Your task to perform on an android device: Open eBay Image 0: 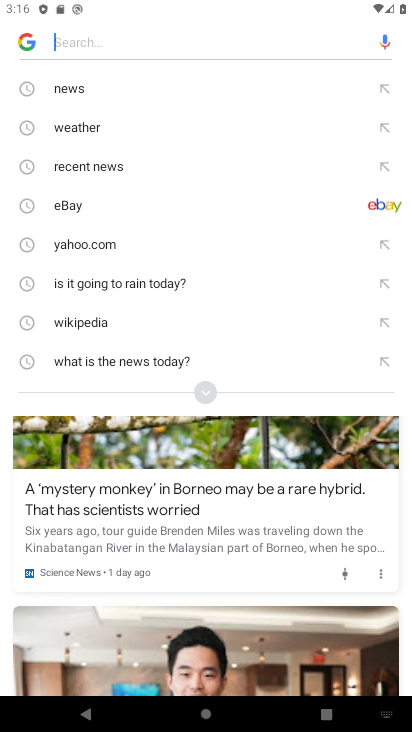
Step 0: press home button
Your task to perform on an android device: Open eBay Image 1: 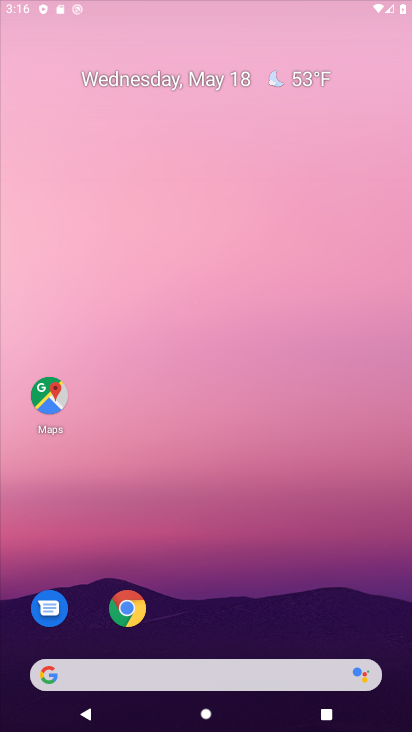
Step 1: drag from (197, 719) to (260, 10)
Your task to perform on an android device: Open eBay Image 2: 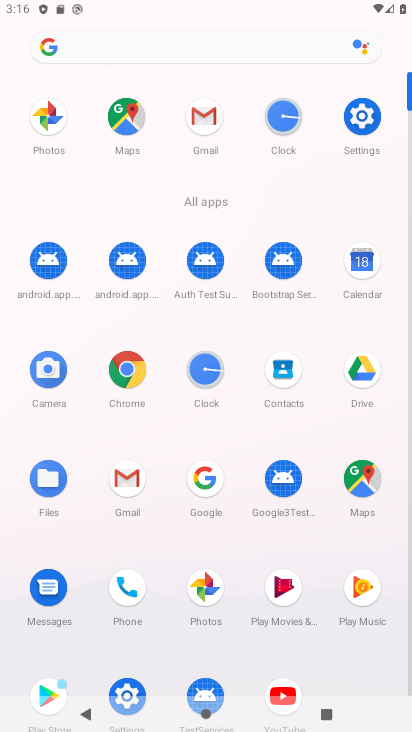
Step 2: click (121, 384)
Your task to perform on an android device: Open eBay Image 3: 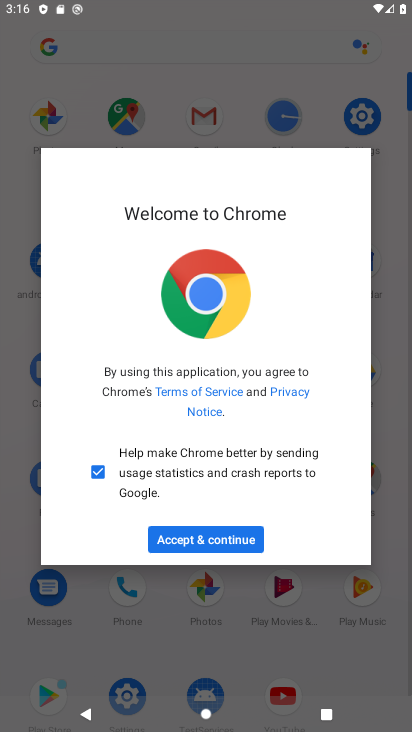
Step 3: click (219, 538)
Your task to perform on an android device: Open eBay Image 4: 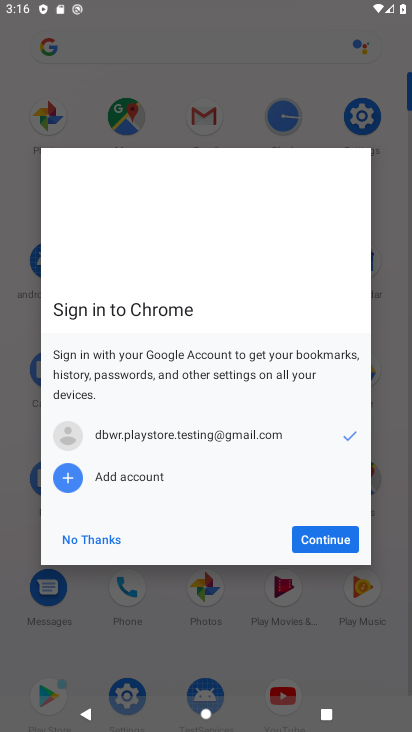
Step 4: click (94, 538)
Your task to perform on an android device: Open eBay Image 5: 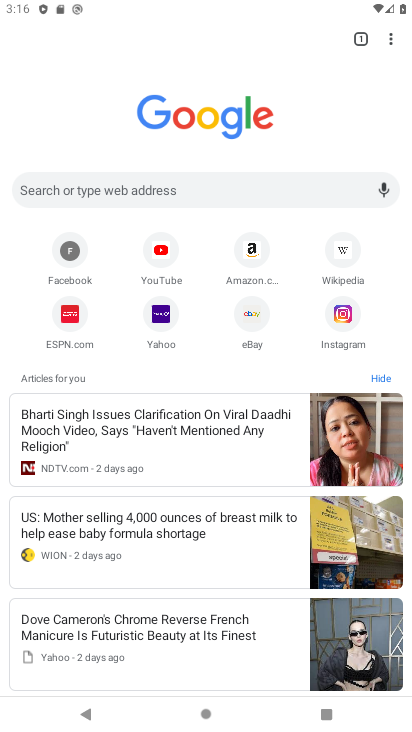
Step 5: click (185, 187)
Your task to perform on an android device: Open eBay Image 6: 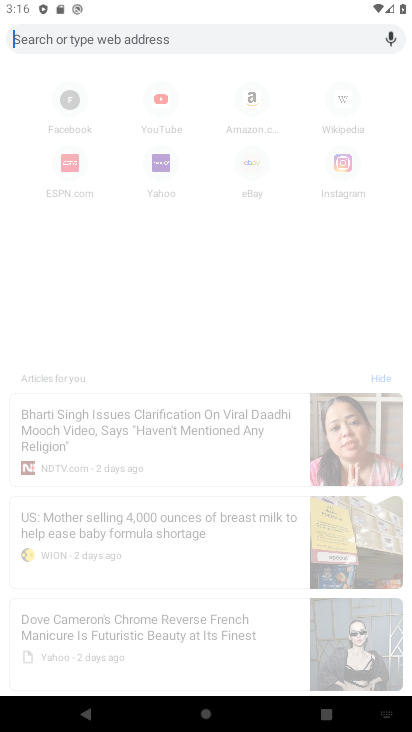
Step 6: type "ebay"
Your task to perform on an android device: Open eBay Image 7: 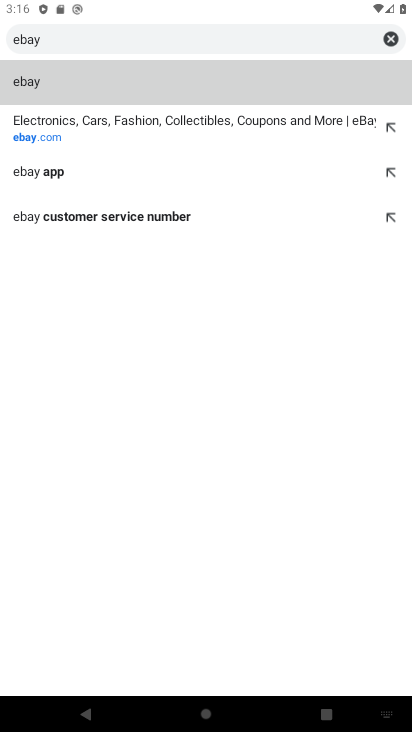
Step 7: click (139, 121)
Your task to perform on an android device: Open eBay Image 8: 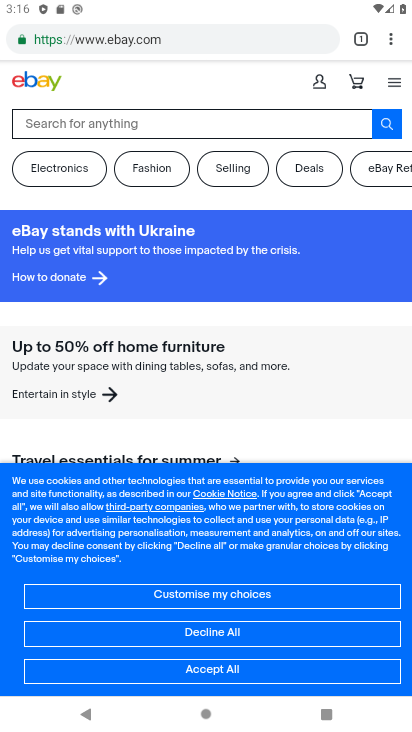
Step 8: task complete